Your task to perform on an android device: change keyboard looks Image 0: 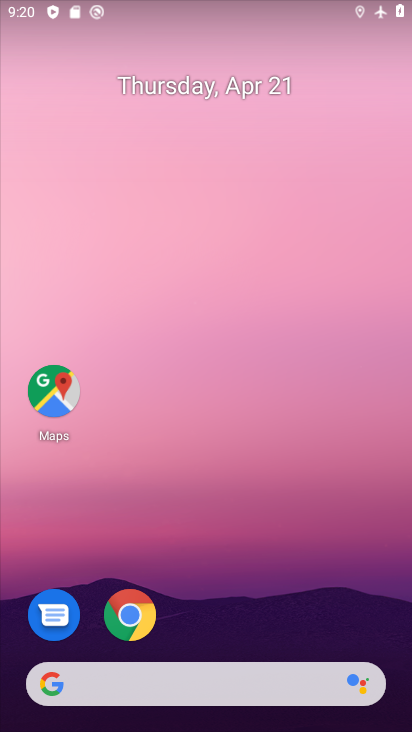
Step 0: drag from (211, 673) to (219, 136)
Your task to perform on an android device: change keyboard looks Image 1: 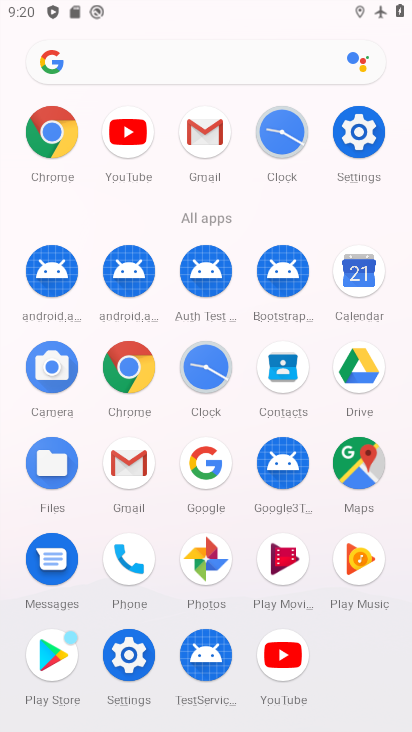
Step 1: click (353, 133)
Your task to perform on an android device: change keyboard looks Image 2: 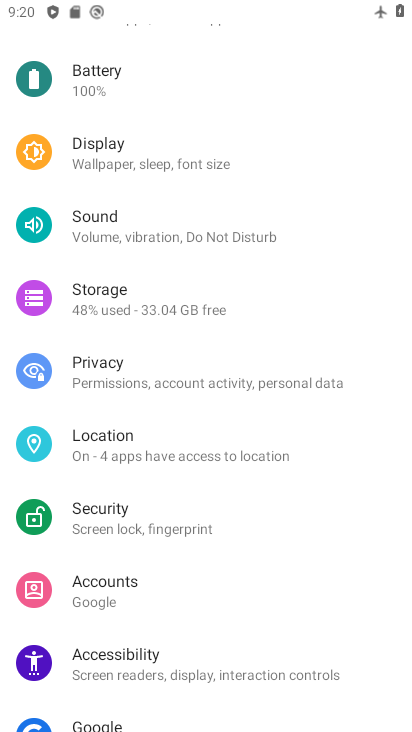
Step 2: drag from (134, 700) to (149, 209)
Your task to perform on an android device: change keyboard looks Image 3: 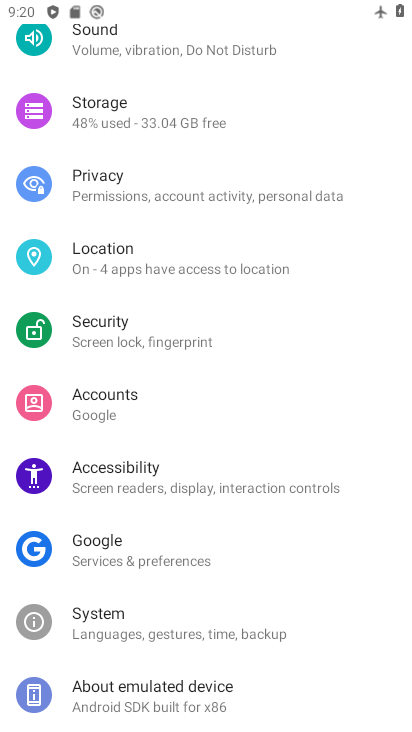
Step 3: click (119, 623)
Your task to perform on an android device: change keyboard looks Image 4: 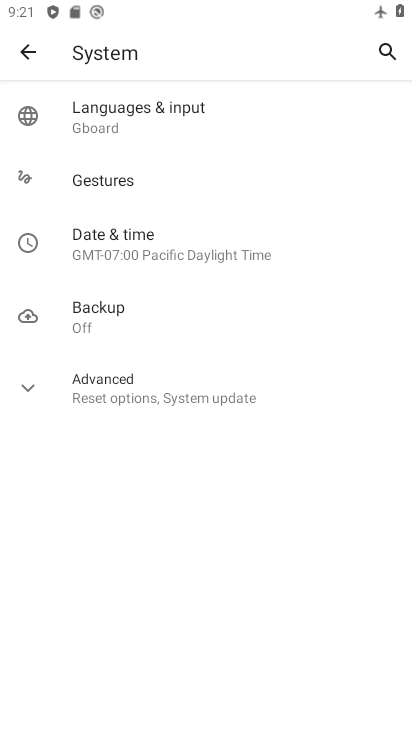
Step 4: click (97, 119)
Your task to perform on an android device: change keyboard looks Image 5: 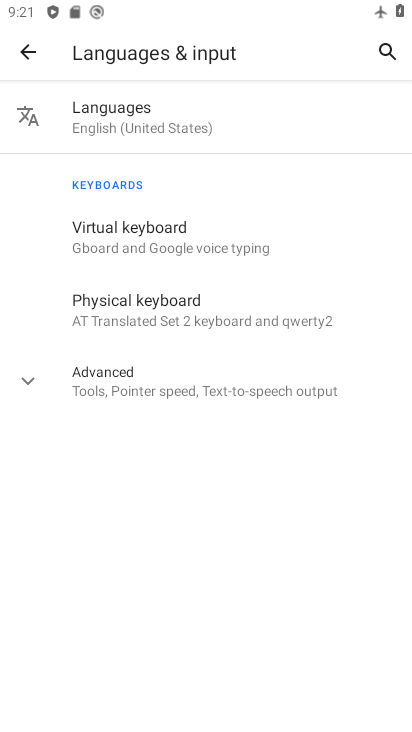
Step 5: click (138, 242)
Your task to perform on an android device: change keyboard looks Image 6: 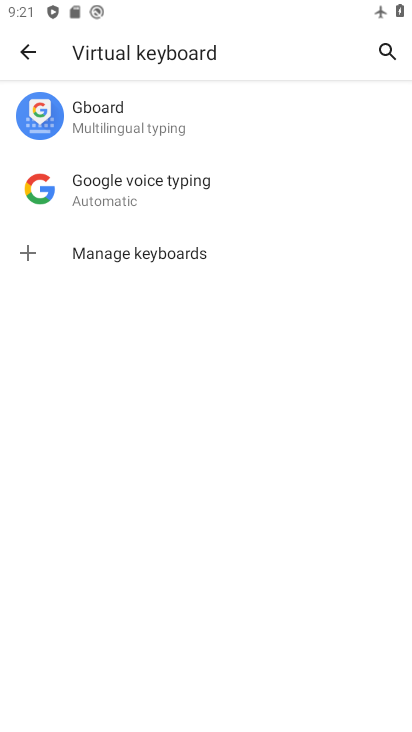
Step 6: click (94, 120)
Your task to perform on an android device: change keyboard looks Image 7: 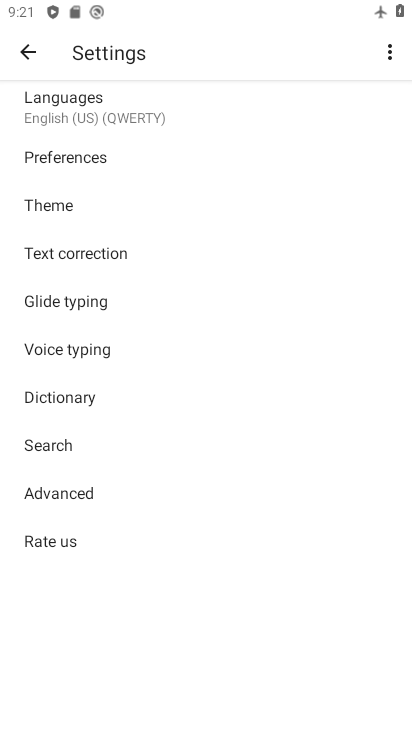
Step 7: click (48, 206)
Your task to perform on an android device: change keyboard looks Image 8: 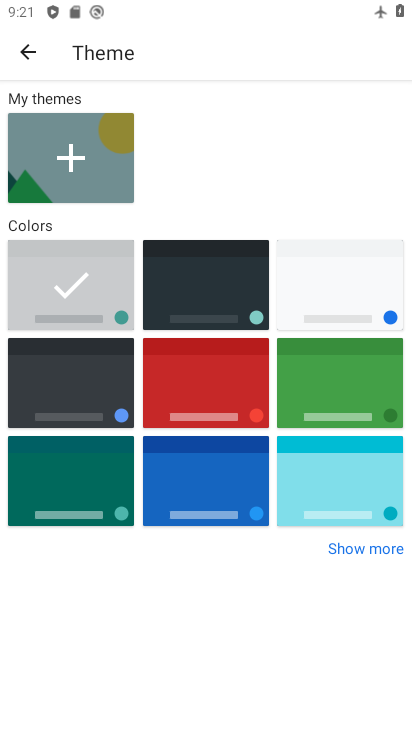
Step 8: click (188, 290)
Your task to perform on an android device: change keyboard looks Image 9: 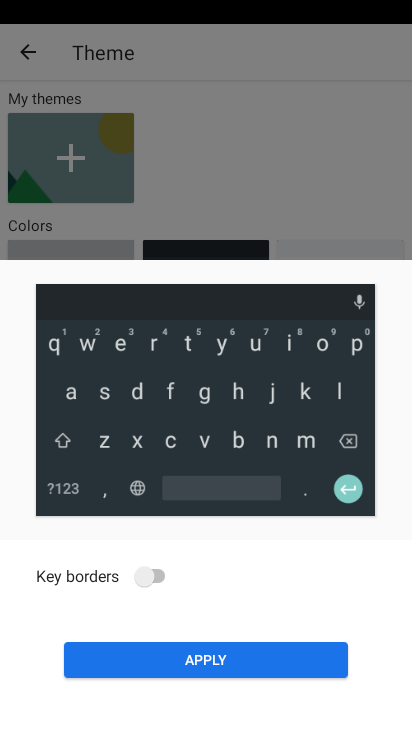
Step 9: click (160, 571)
Your task to perform on an android device: change keyboard looks Image 10: 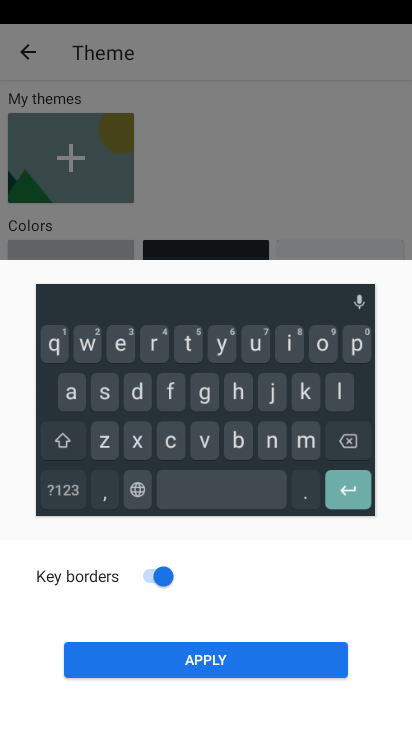
Step 10: click (231, 669)
Your task to perform on an android device: change keyboard looks Image 11: 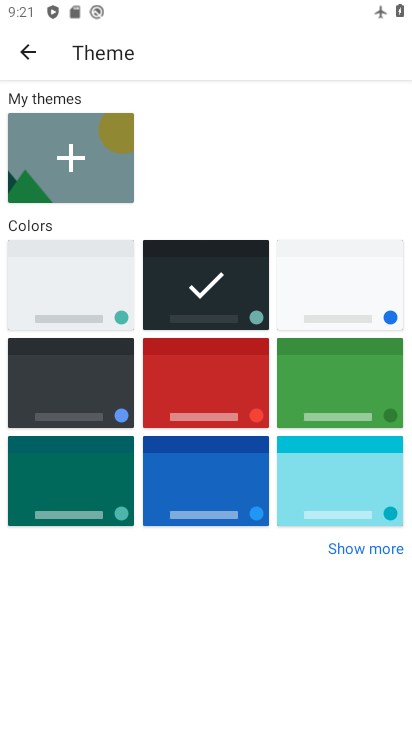
Step 11: task complete